Your task to perform on an android device: toggle priority inbox in the gmail app Image 0: 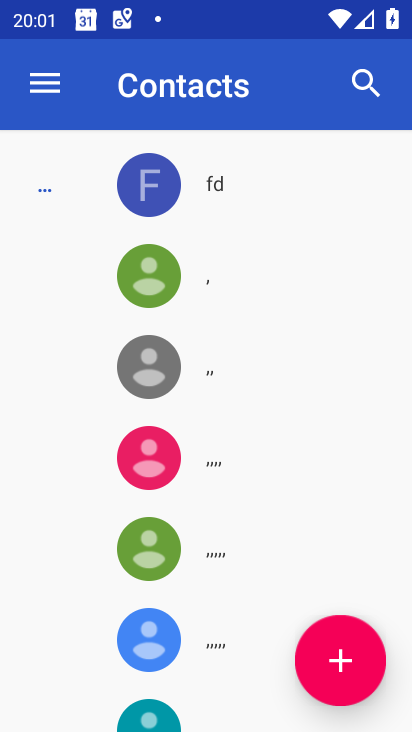
Step 0: press home button
Your task to perform on an android device: toggle priority inbox in the gmail app Image 1: 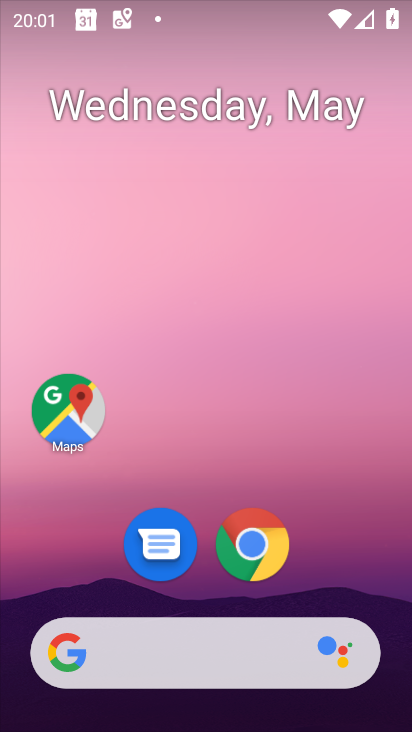
Step 1: drag from (208, 617) to (211, 129)
Your task to perform on an android device: toggle priority inbox in the gmail app Image 2: 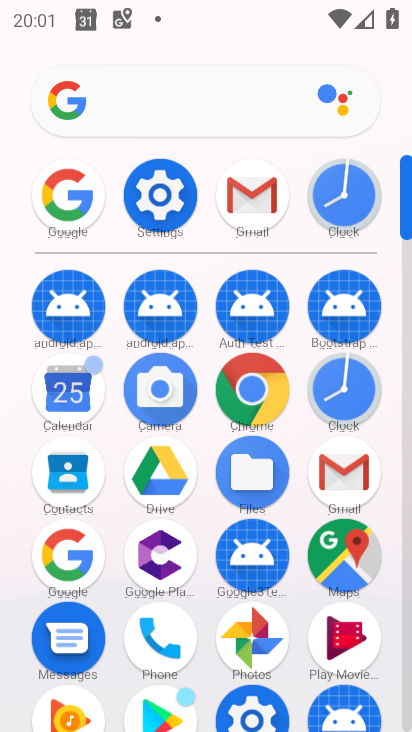
Step 2: click (256, 172)
Your task to perform on an android device: toggle priority inbox in the gmail app Image 3: 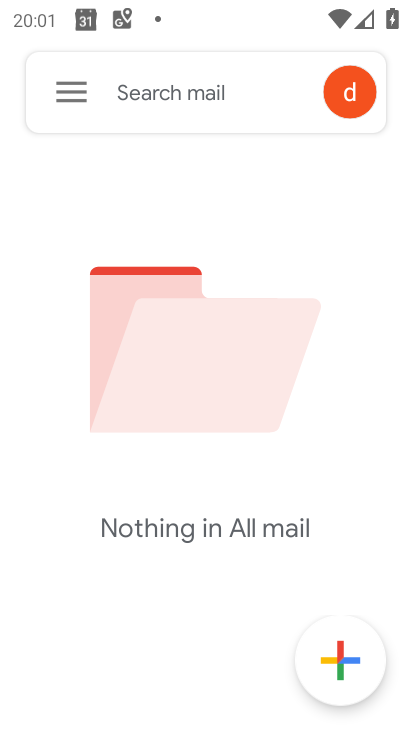
Step 3: click (64, 99)
Your task to perform on an android device: toggle priority inbox in the gmail app Image 4: 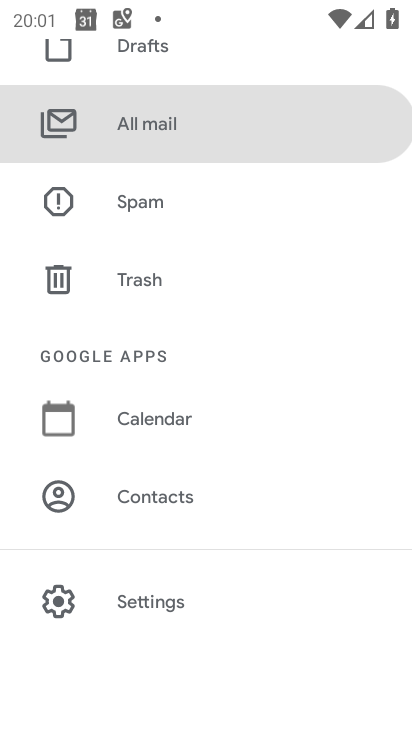
Step 4: click (108, 584)
Your task to perform on an android device: toggle priority inbox in the gmail app Image 5: 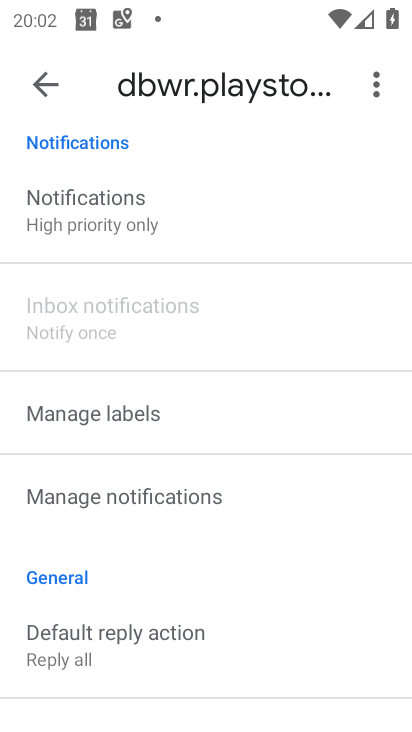
Step 5: click (140, 231)
Your task to perform on an android device: toggle priority inbox in the gmail app Image 6: 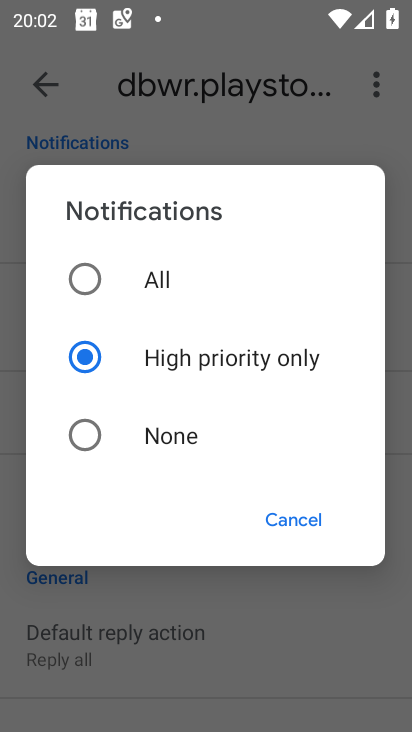
Step 6: click (150, 287)
Your task to perform on an android device: toggle priority inbox in the gmail app Image 7: 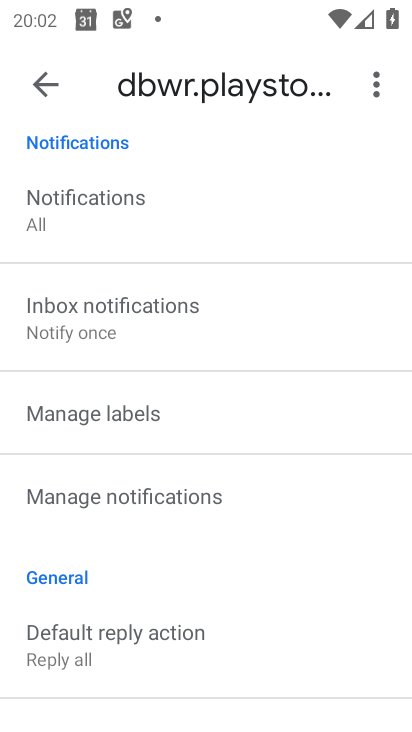
Step 7: task complete